Your task to perform on an android device: check storage Image 0: 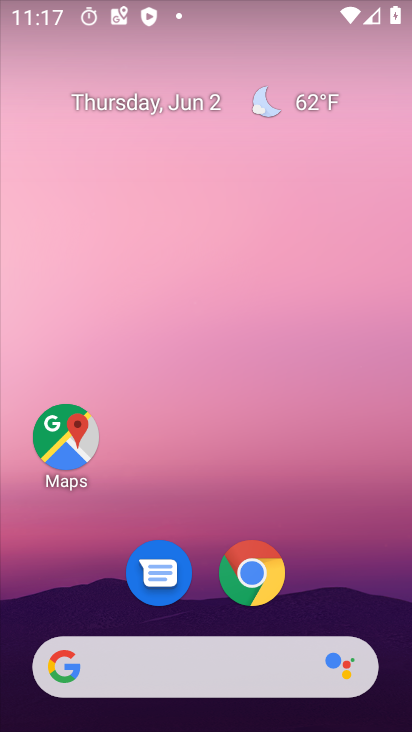
Step 0: drag from (250, 587) to (359, 77)
Your task to perform on an android device: check storage Image 1: 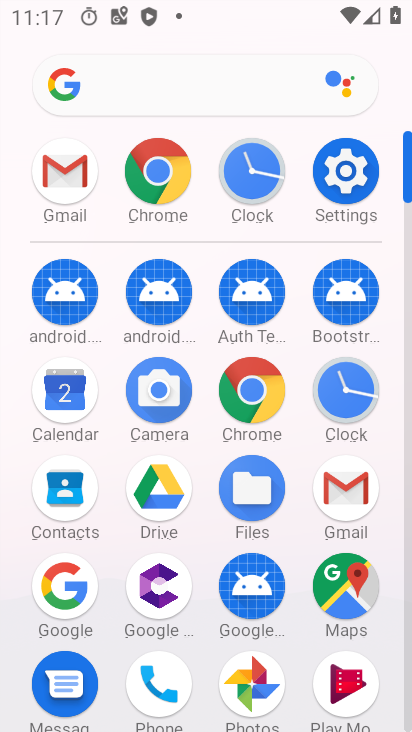
Step 1: click (349, 156)
Your task to perform on an android device: check storage Image 2: 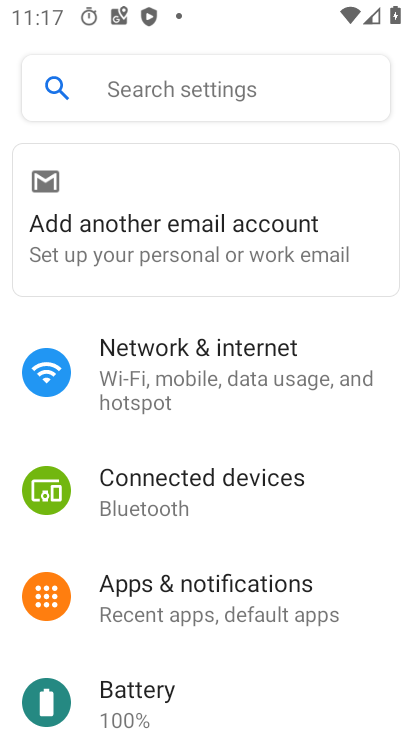
Step 2: drag from (208, 634) to (262, 95)
Your task to perform on an android device: check storage Image 3: 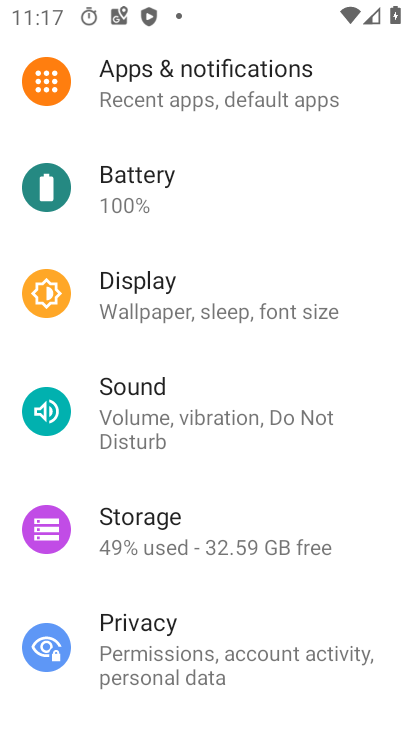
Step 3: click (181, 538)
Your task to perform on an android device: check storage Image 4: 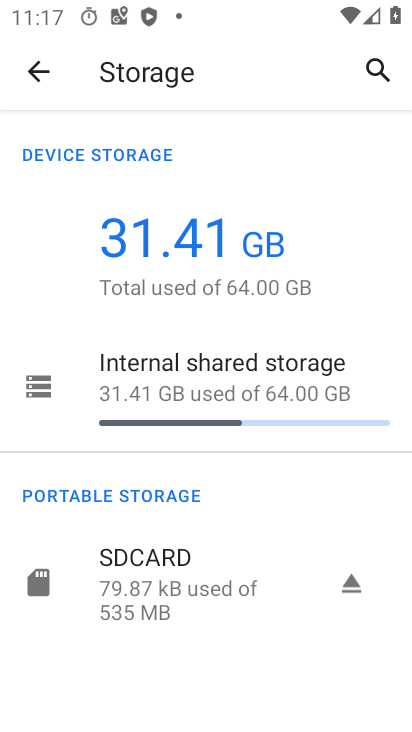
Step 4: task complete